Your task to perform on an android device: Open ESPN.com Image 0: 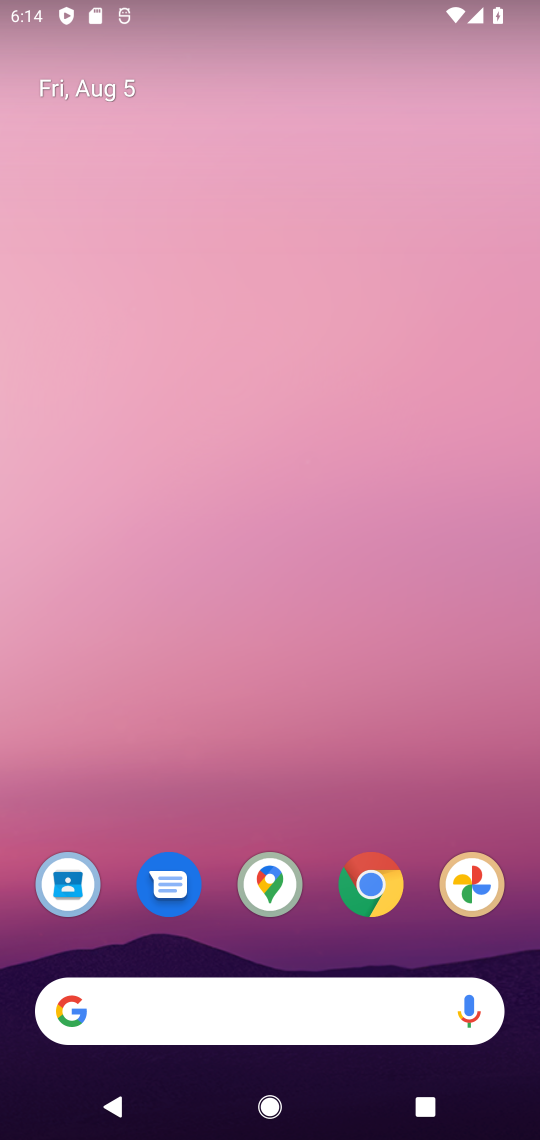
Step 0: press home button
Your task to perform on an android device: Open ESPN.com Image 1: 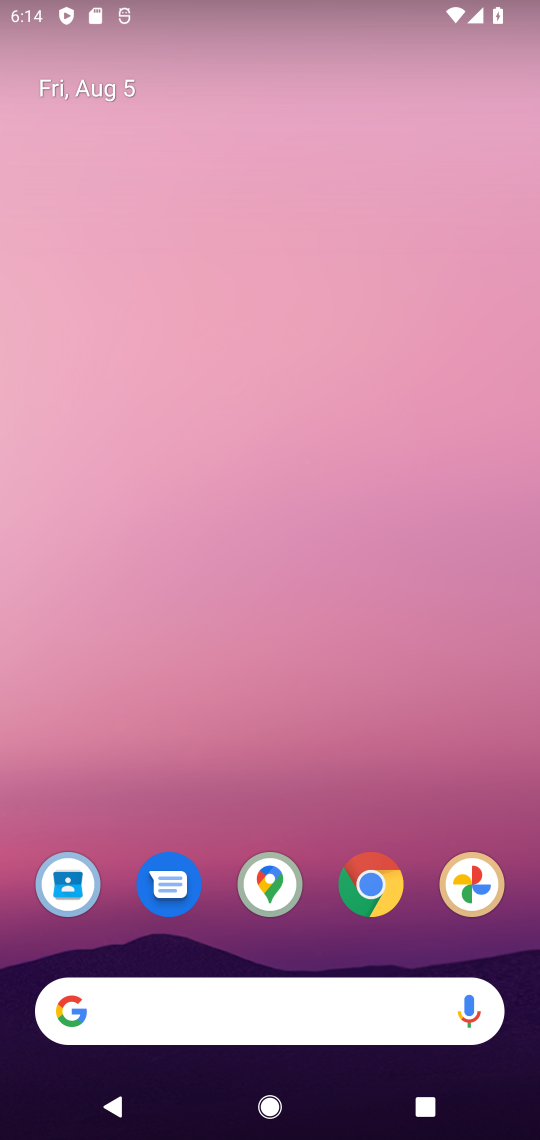
Step 1: click (370, 878)
Your task to perform on an android device: Open ESPN.com Image 2: 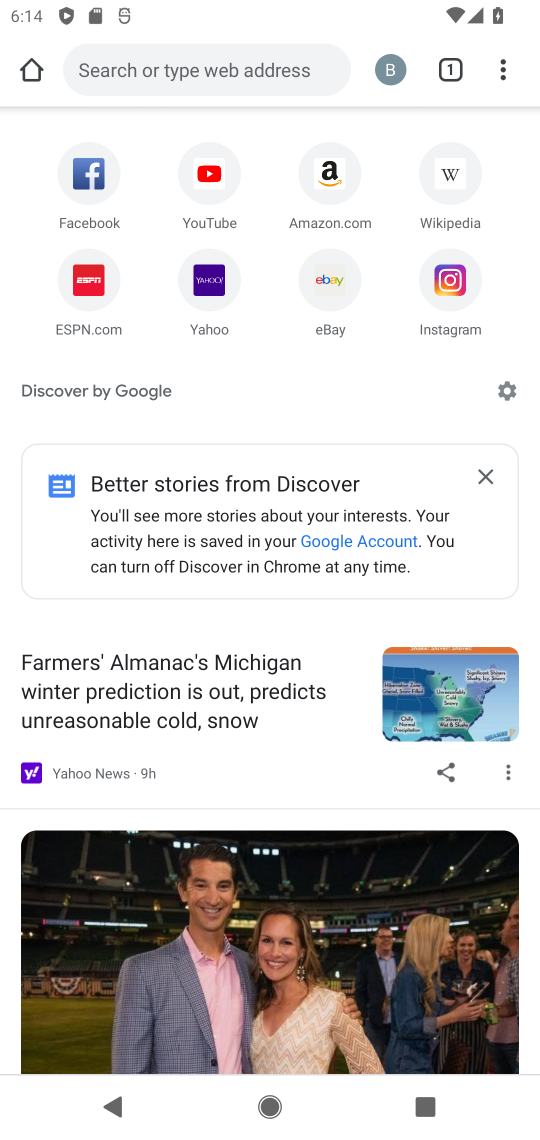
Step 2: click (80, 272)
Your task to perform on an android device: Open ESPN.com Image 3: 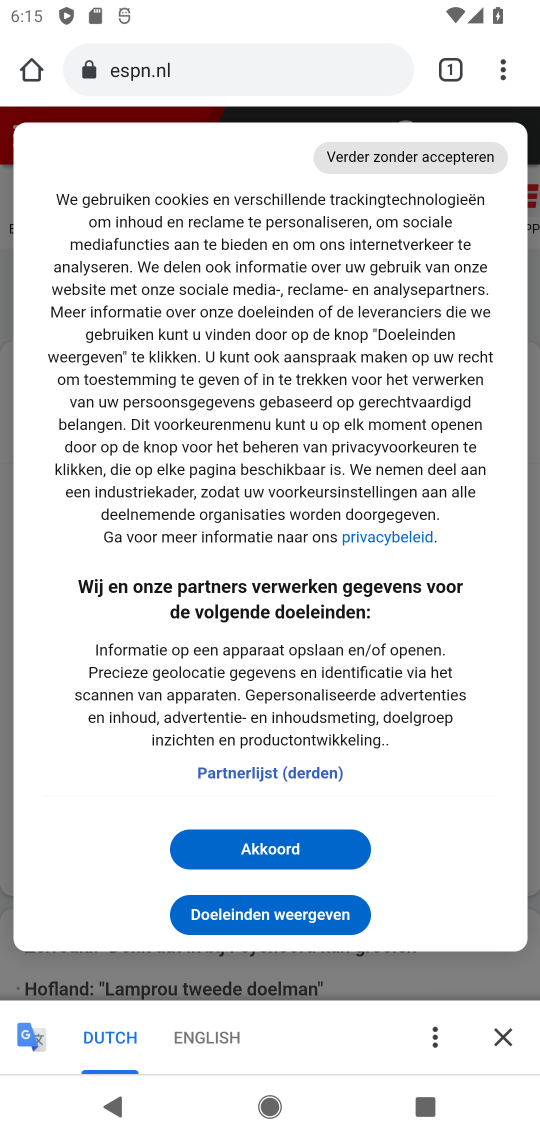
Step 3: click (269, 853)
Your task to perform on an android device: Open ESPN.com Image 4: 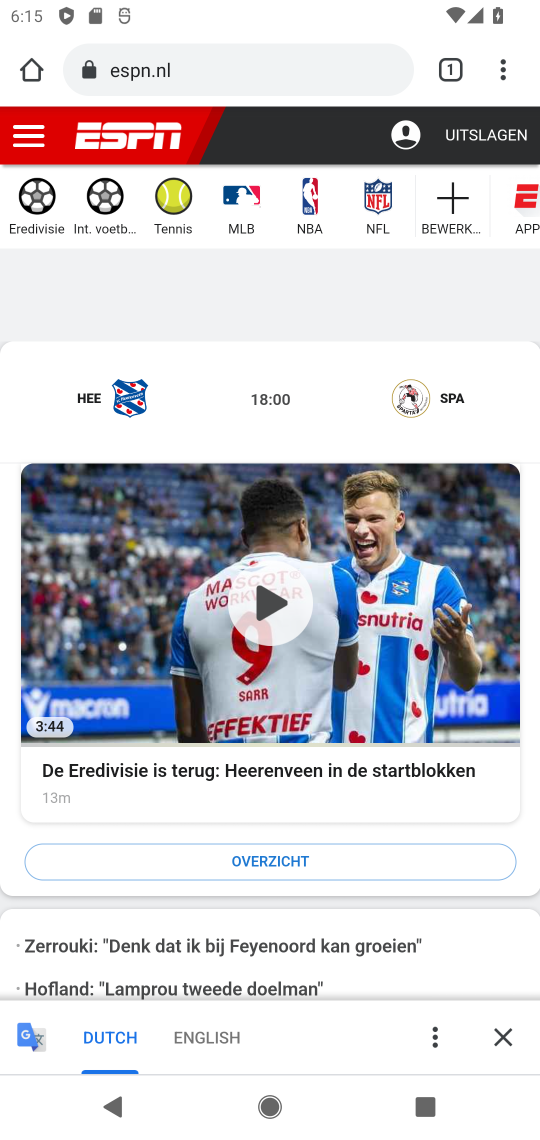
Step 4: task complete